Your task to perform on an android device: turn on improve location accuracy Image 0: 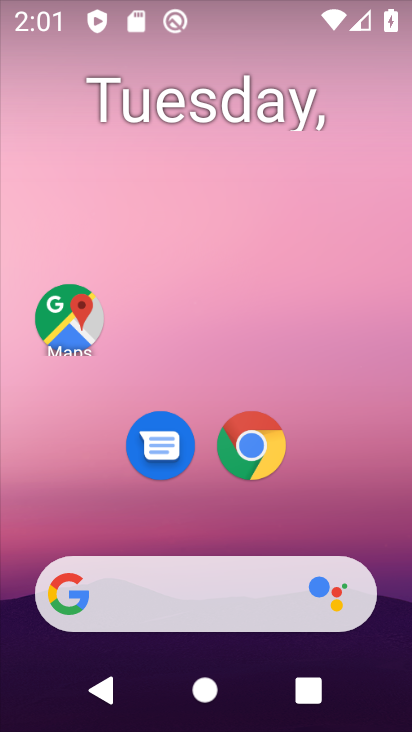
Step 0: drag from (202, 511) to (249, 3)
Your task to perform on an android device: turn on improve location accuracy Image 1: 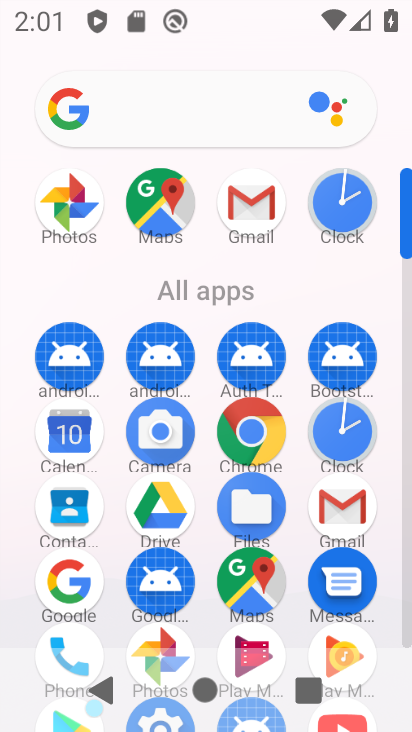
Step 1: drag from (112, 605) to (289, 11)
Your task to perform on an android device: turn on improve location accuracy Image 2: 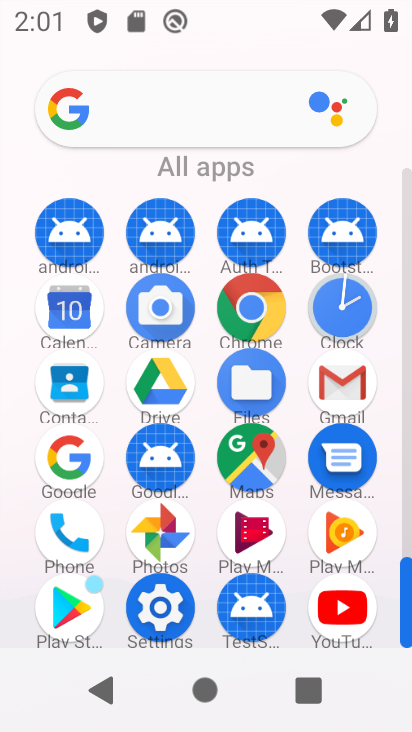
Step 2: click (163, 592)
Your task to perform on an android device: turn on improve location accuracy Image 3: 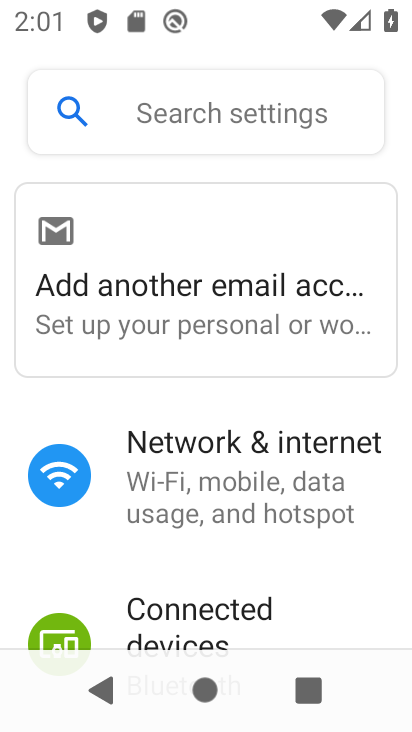
Step 3: drag from (150, 544) to (405, 262)
Your task to perform on an android device: turn on improve location accuracy Image 4: 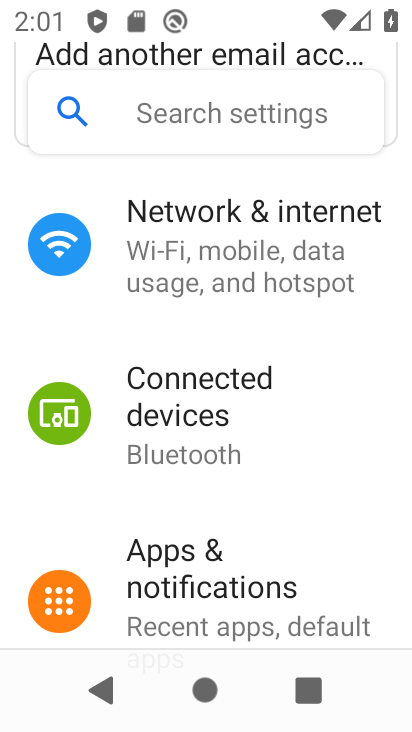
Step 4: drag from (138, 625) to (208, 213)
Your task to perform on an android device: turn on improve location accuracy Image 5: 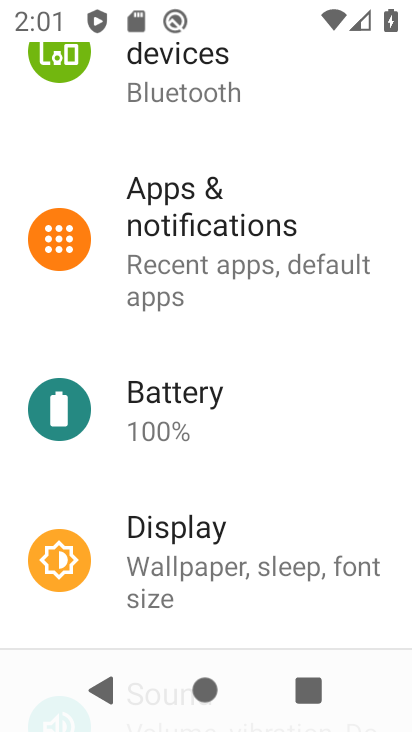
Step 5: drag from (223, 532) to (281, 14)
Your task to perform on an android device: turn on improve location accuracy Image 6: 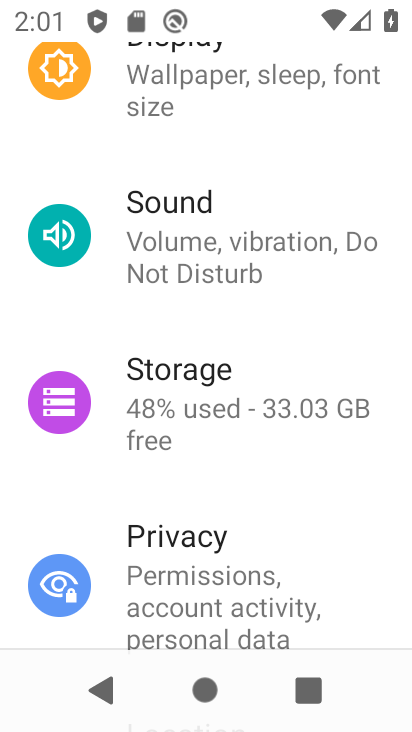
Step 6: drag from (191, 537) to (235, 263)
Your task to perform on an android device: turn on improve location accuracy Image 7: 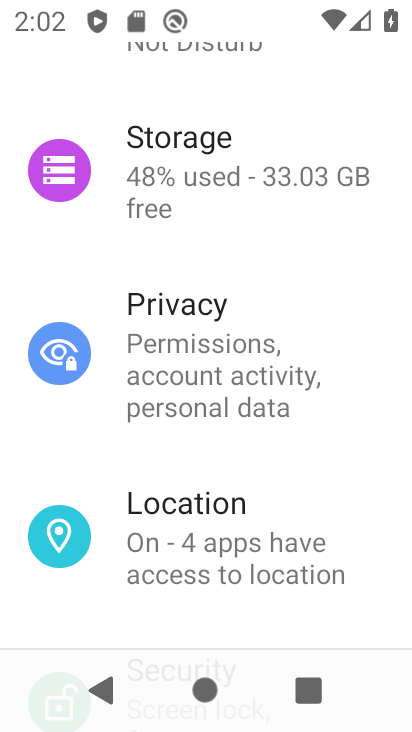
Step 7: click (181, 514)
Your task to perform on an android device: turn on improve location accuracy Image 8: 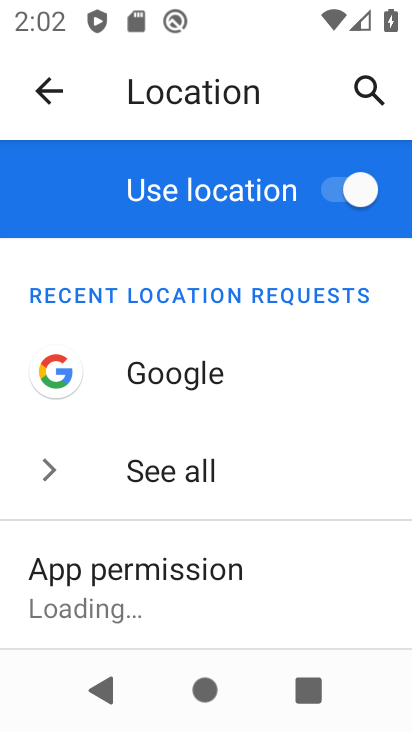
Step 8: drag from (163, 586) to (227, 233)
Your task to perform on an android device: turn on improve location accuracy Image 9: 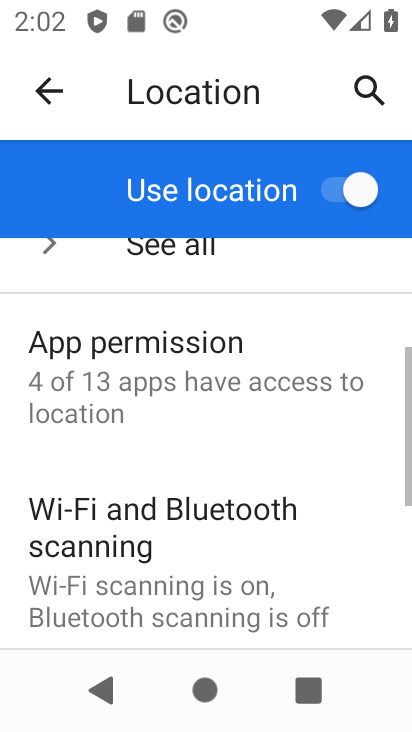
Step 9: drag from (199, 615) to (223, 217)
Your task to perform on an android device: turn on improve location accuracy Image 10: 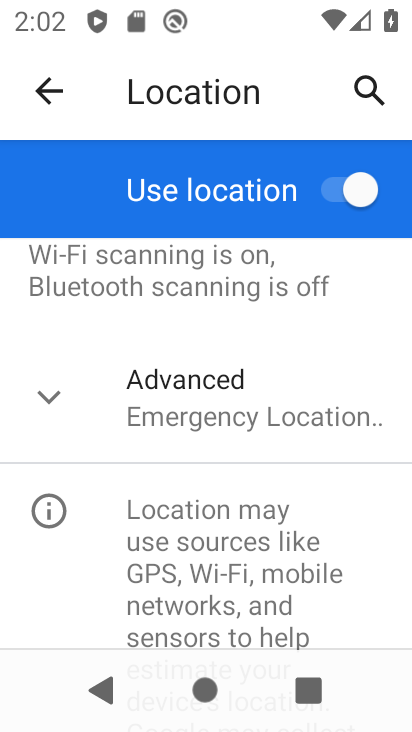
Step 10: click (92, 425)
Your task to perform on an android device: turn on improve location accuracy Image 11: 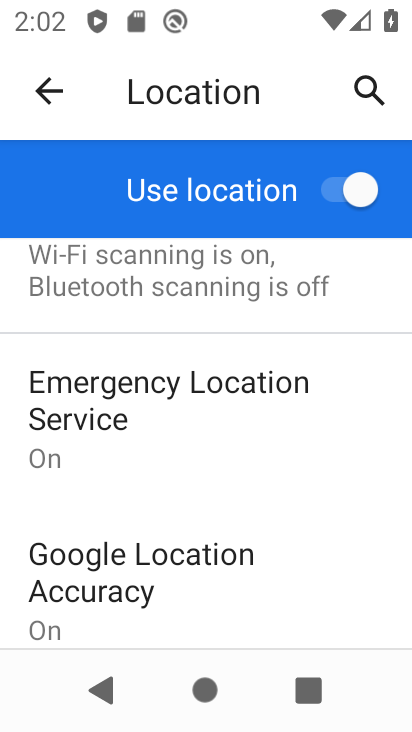
Step 11: drag from (185, 510) to (296, 13)
Your task to perform on an android device: turn on improve location accuracy Image 12: 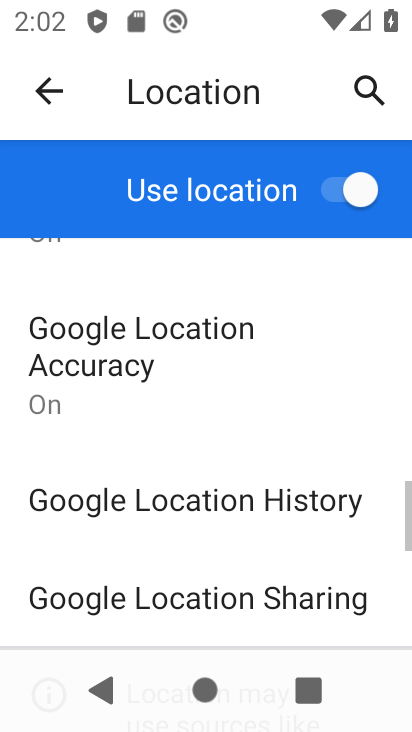
Step 12: click (146, 353)
Your task to perform on an android device: turn on improve location accuracy Image 13: 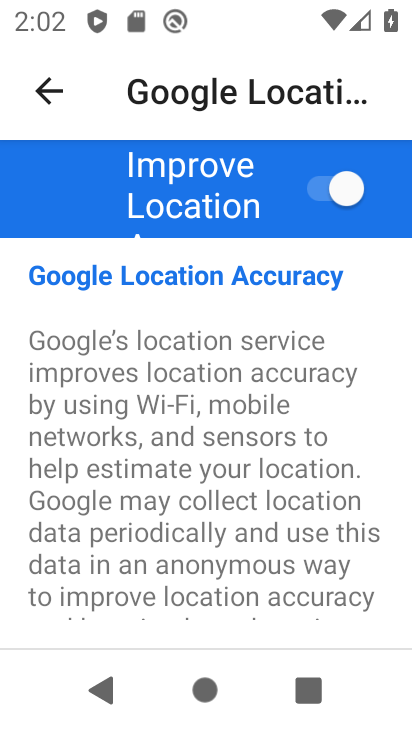
Step 13: task complete